Your task to perform on an android device: Open calendar and show me the first week of next month Image 0: 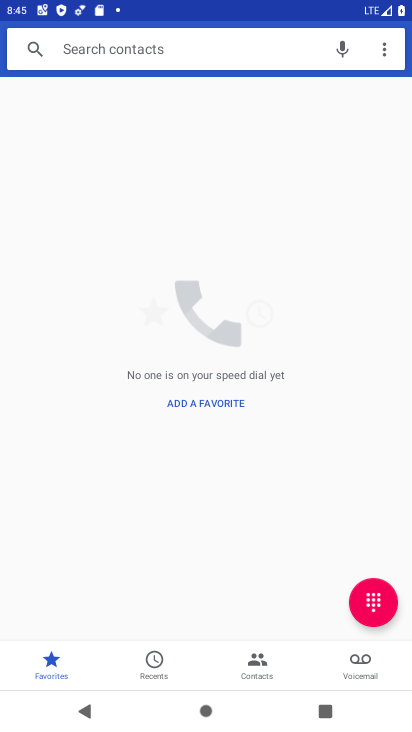
Step 0: press home button
Your task to perform on an android device: Open calendar and show me the first week of next month Image 1: 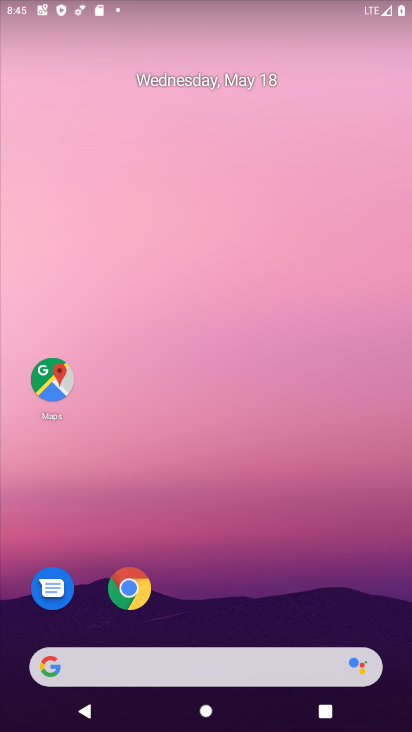
Step 1: drag from (251, 636) to (256, 2)
Your task to perform on an android device: Open calendar and show me the first week of next month Image 2: 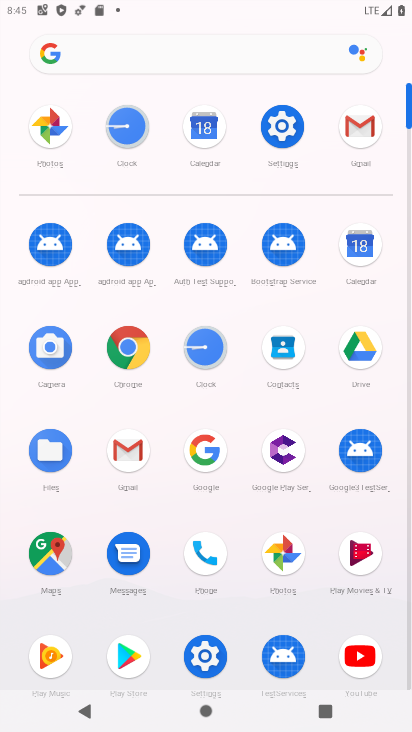
Step 2: click (206, 129)
Your task to perform on an android device: Open calendar and show me the first week of next month Image 3: 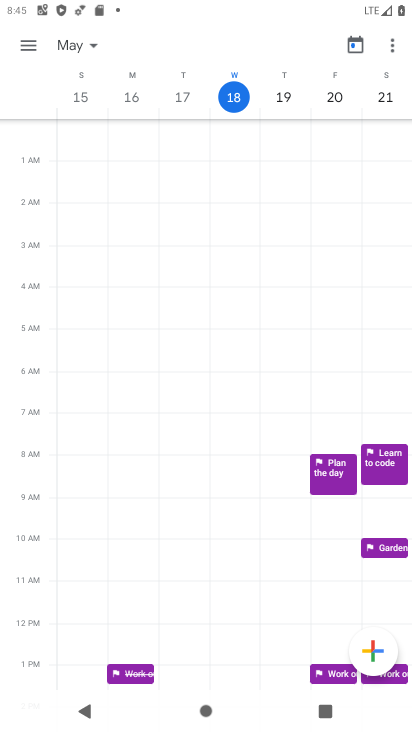
Step 3: click (94, 45)
Your task to perform on an android device: Open calendar and show me the first week of next month Image 4: 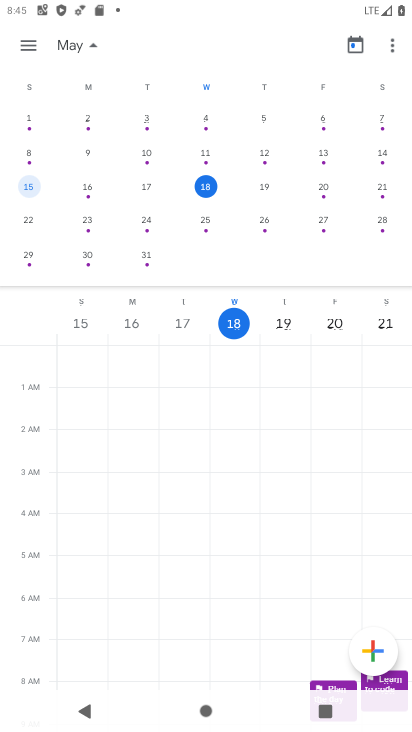
Step 4: task complete